Your task to perform on an android device: Go to eBay Image 0: 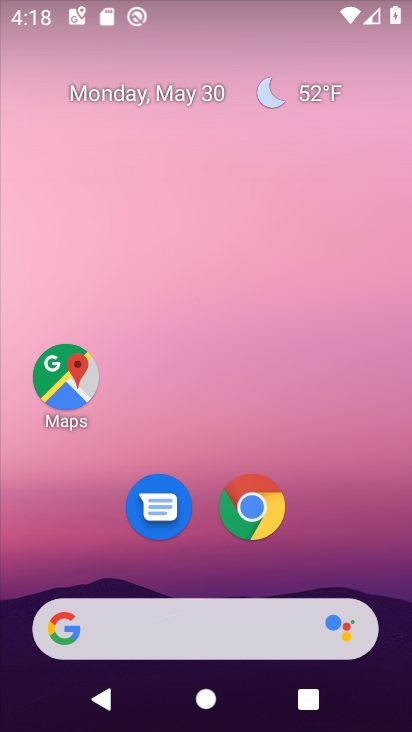
Step 0: press home button
Your task to perform on an android device: Go to eBay Image 1: 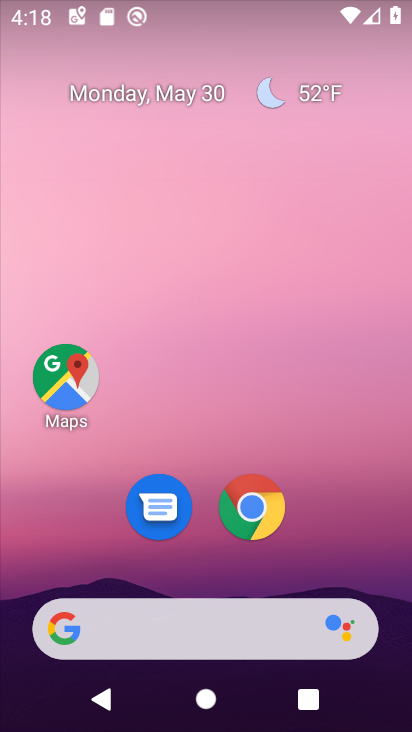
Step 1: drag from (335, 535) to (378, 48)
Your task to perform on an android device: Go to eBay Image 2: 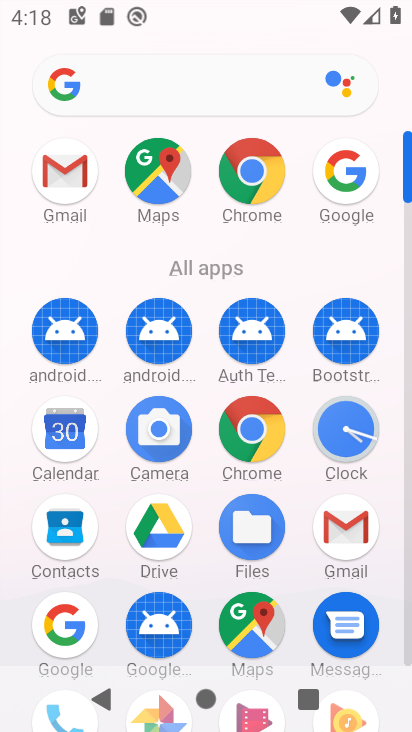
Step 2: click (407, 619)
Your task to perform on an android device: Go to eBay Image 3: 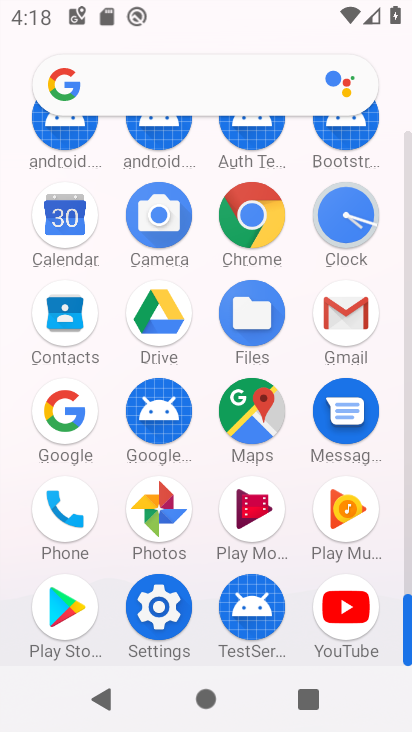
Step 3: click (264, 247)
Your task to perform on an android device: Go to eBay Image 4: 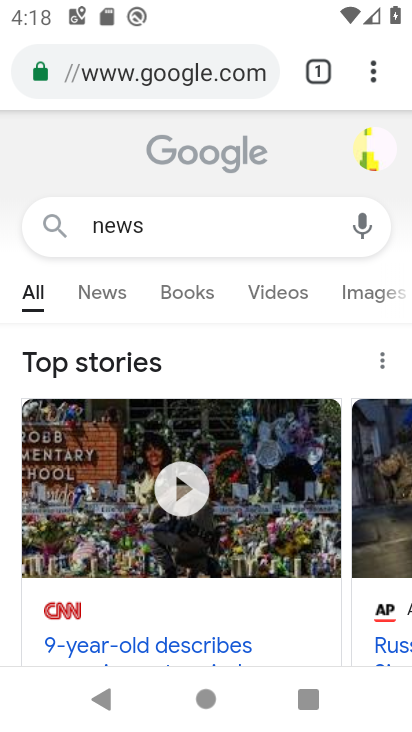
Step 4: click (243, 68)
Your task to perform on an android device: Go to eBay Image 5: 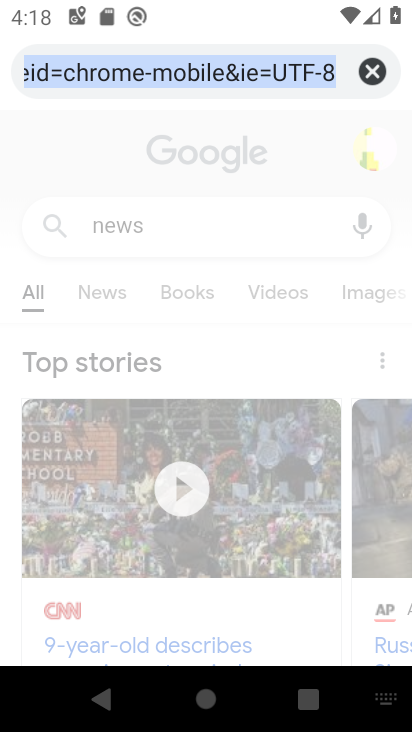
Step 5: click (371, 53)
Your task to perform on an android device: Go to eBay Image 6: 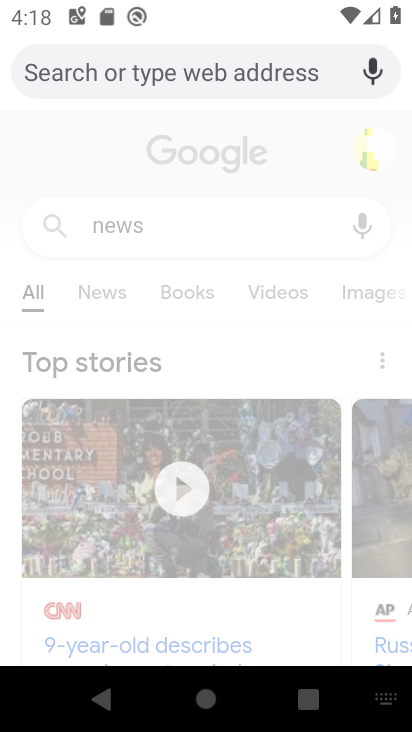
Step 6: type "eBay"
Your task to perform on an android device: Go to eBay Image 7: 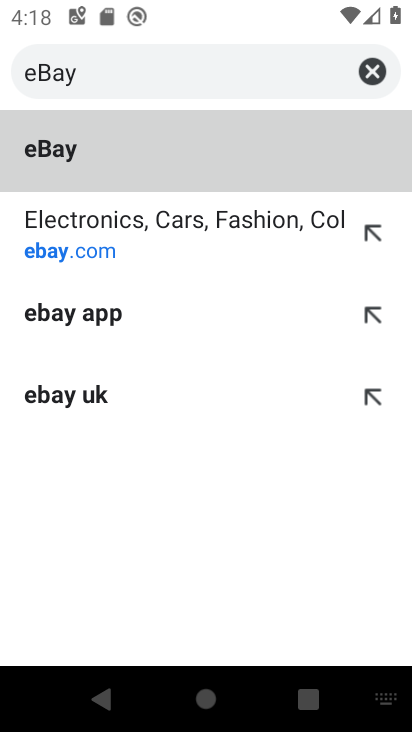
Step 7: click (251, 218)
Your task to perform on an android device: Go to eBay Image 8: 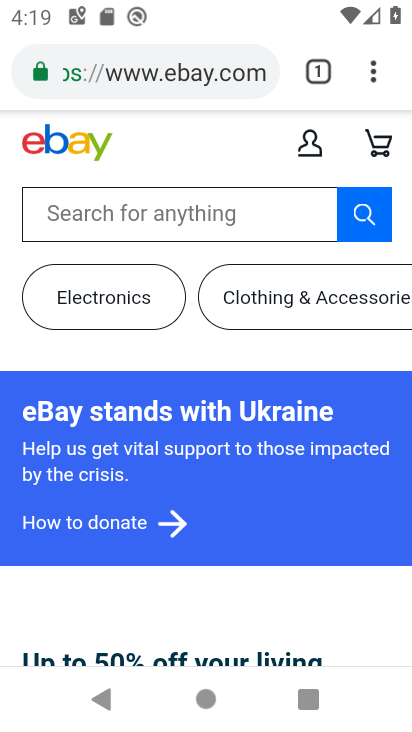
Step 8: task complete